Your task to perform on an android device: Go to internet settings Image 0: 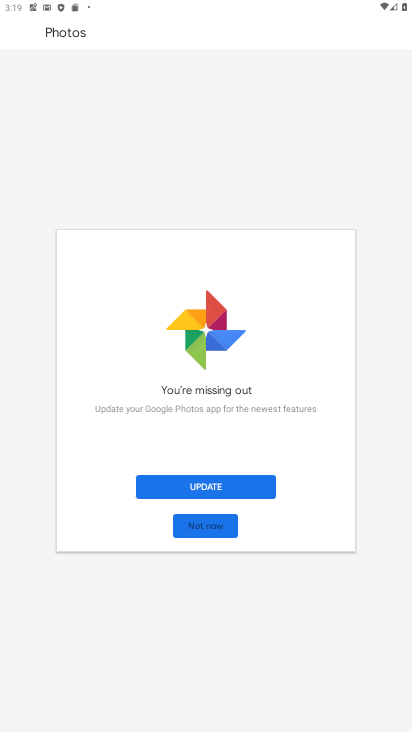
Step 0: drag from (347, 5) to (165, 685)
Your task to perform on an android device: Go to internet settings Image 1: 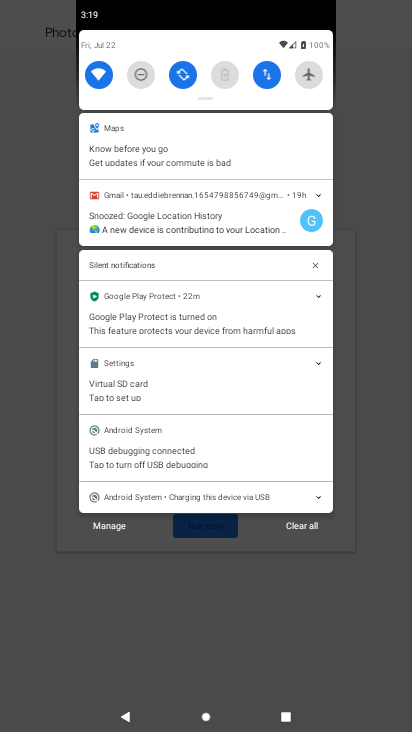
Step 1: task complete